Your task to perform on an android device: Open Yahoo.com Image 0: 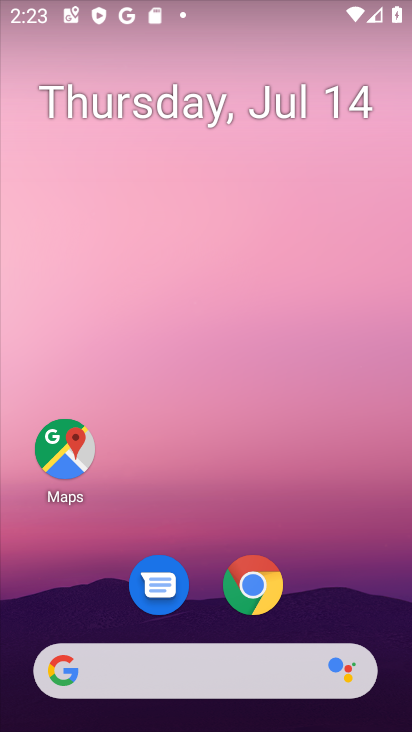
Step 0: click (266, 592)
Your task to perform on an android device: Open Yahoo.com Image 1: 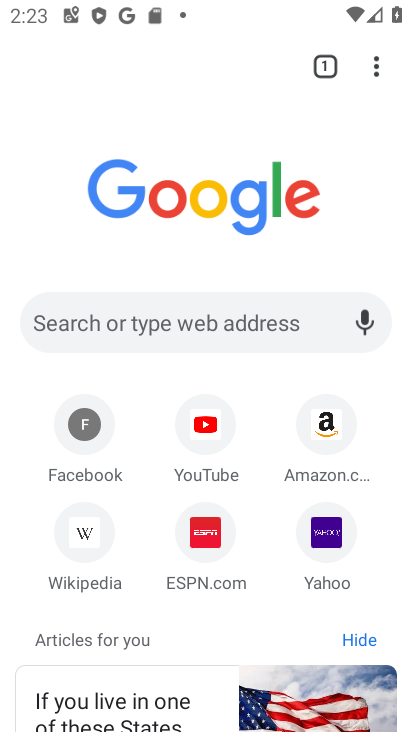
Step 1: click (327, 534)
Your task to perform on an android device: Open Yahoo.com Image 2: 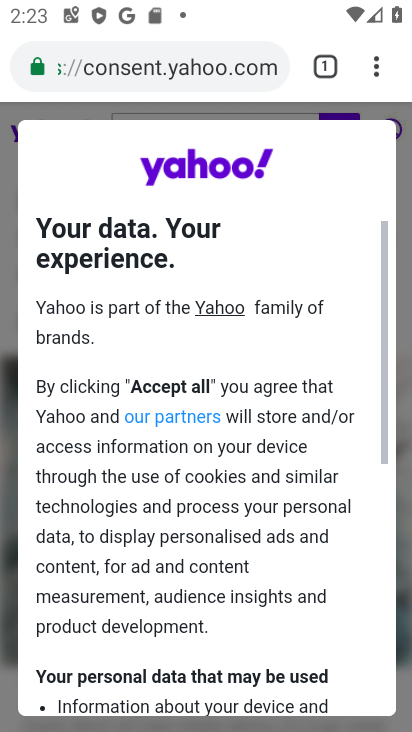
Step 2: drag from (237, 617) to (244, 32)
Your task to perform on an android device: Open Yahoo.com Image 3: 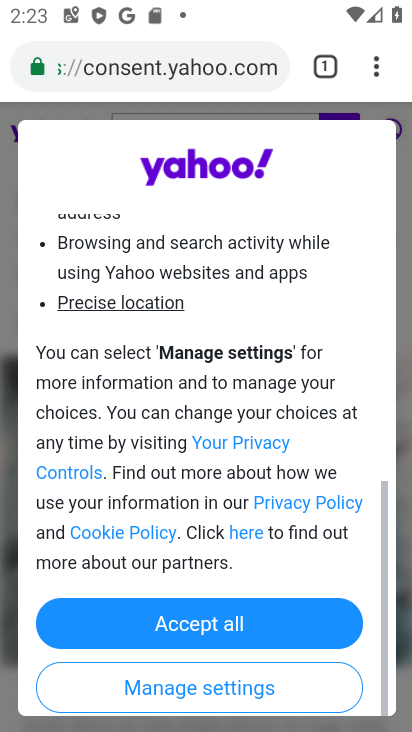
Step 3: click (265, 612)
Your task to perform on an android device: Open Yahoo.com Image 4: 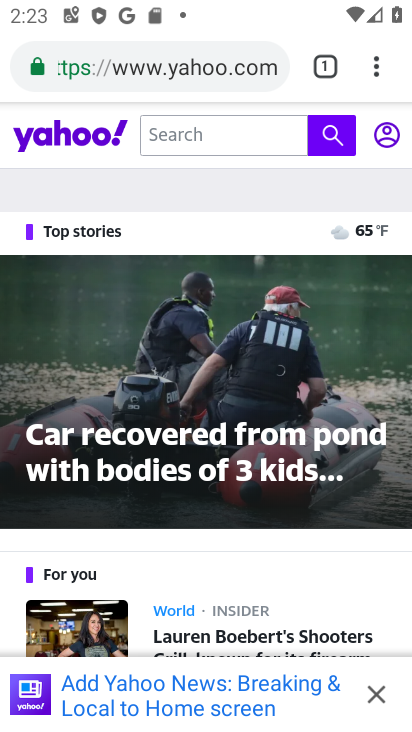
Step 4: drag from (271, 497) to (265, 74)
Your task to perform on an android device: Open Yahoo.com Image 5: 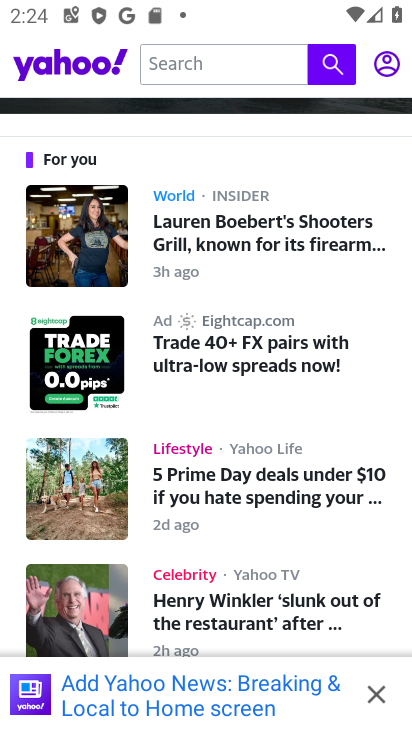
Step 5: click (264, 482)
Your task to perform on an android device: Open Yahoo.com Image 6: 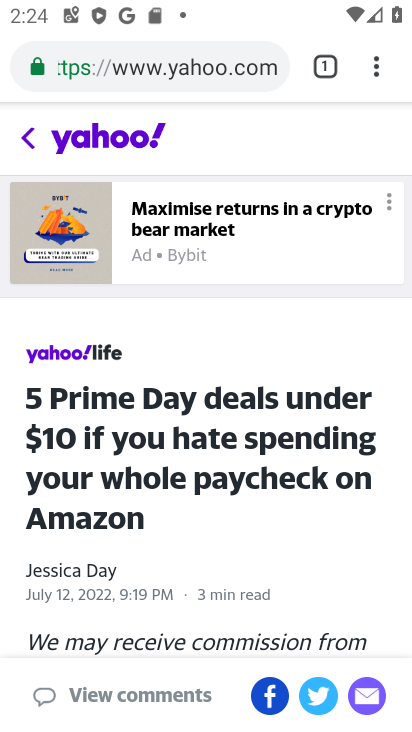
Step 6: task complete